Your task to perform on an android device: toggle notifications settings in the gmail app Image 0: 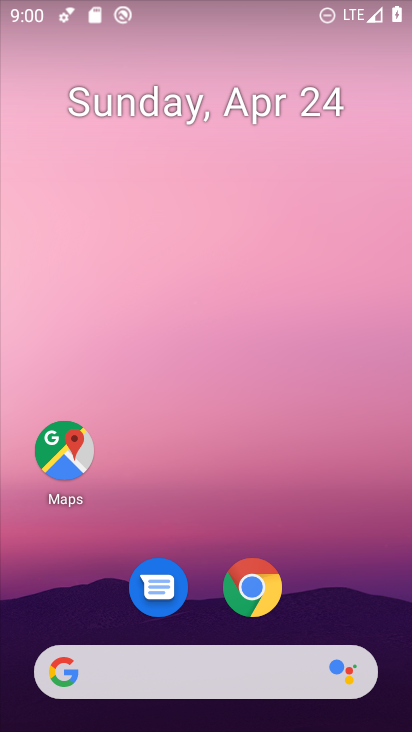
Step 0: drag from (328, 332) to (322, 242)
Your task to perform on an android device: toggle notifications settings in the gmail app Image 1: 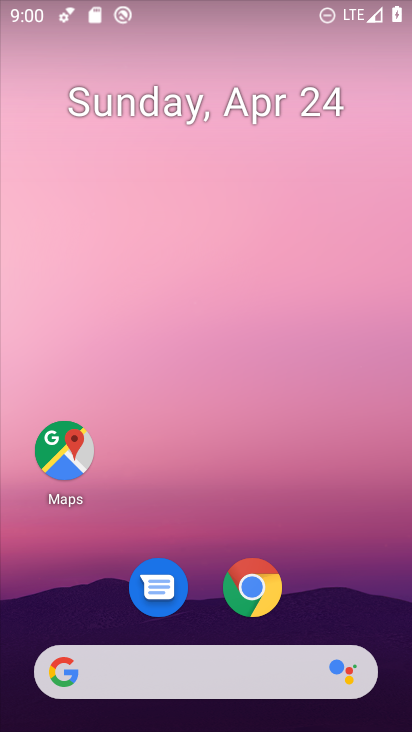
Step 1: drag from (366, 579) to (316, 239)
Your task to perform on an android device: toggle notifications settings in the gmail app Image 2: 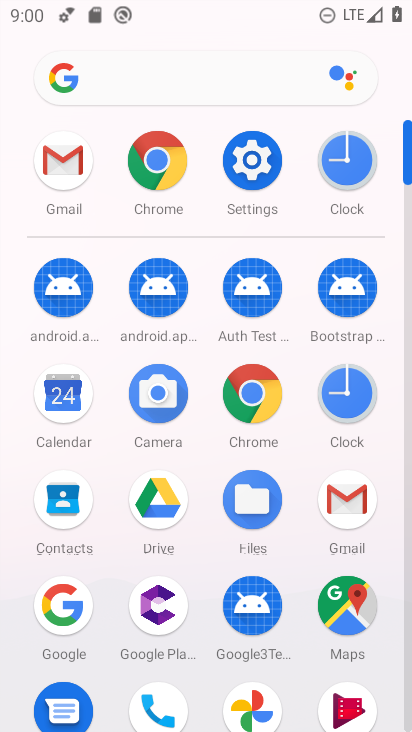
Step 2: click (340, 506)
Your task to perform on an android device: toggle notifications settings in the gmail app Image 3: 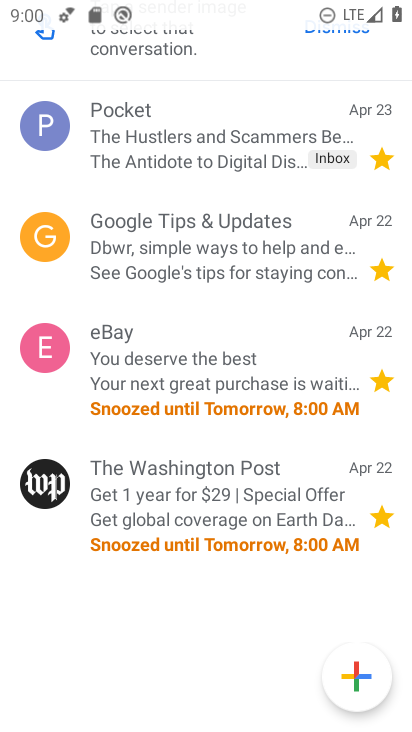
Step 3: drag from (163, 123) to (229, 496)
Your task to perform on an android device: toggle notifications settings in the gmail app Image 4: 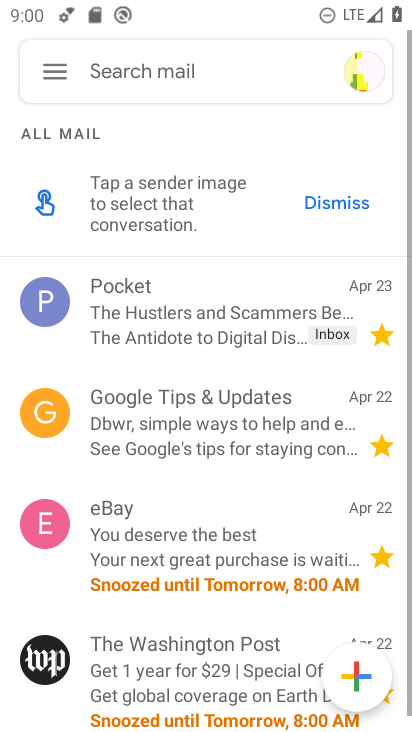
Step 4: click (59, 75)
Your task to perform on an android device: toggle notifications settings in the gmail app Image 5: 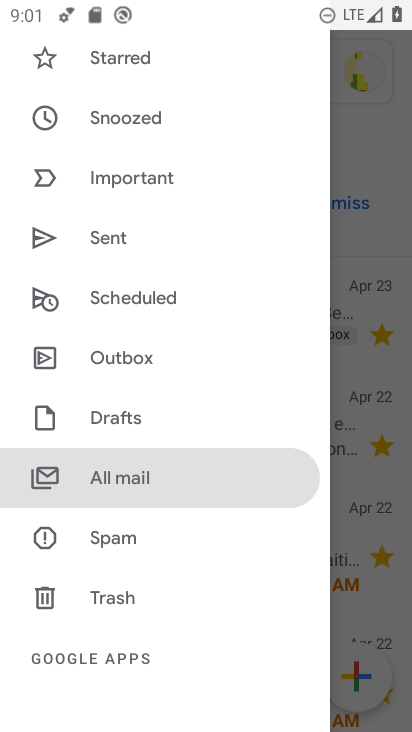
Step 5: drag from (203, 636) to (200, 362)
Your task to perform on an android device: toggle notifications settings in the gmail app Image 6: 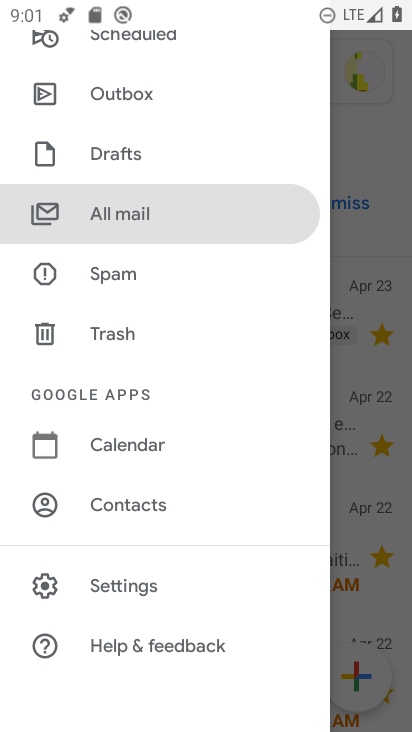
Step 6: click (100, 580)
Your task to perform on an android device: toggle notifications settings in the gmail app Image 7: 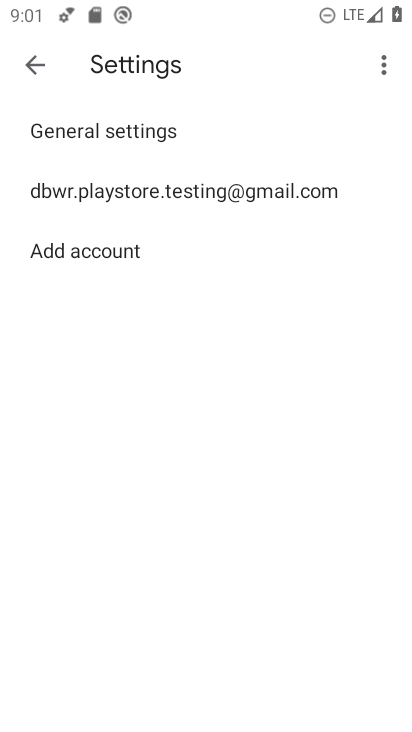
Step 7: click (232, 195)
Your task to perform on an android device: toggle notifications settings in the gmail app Image 8: 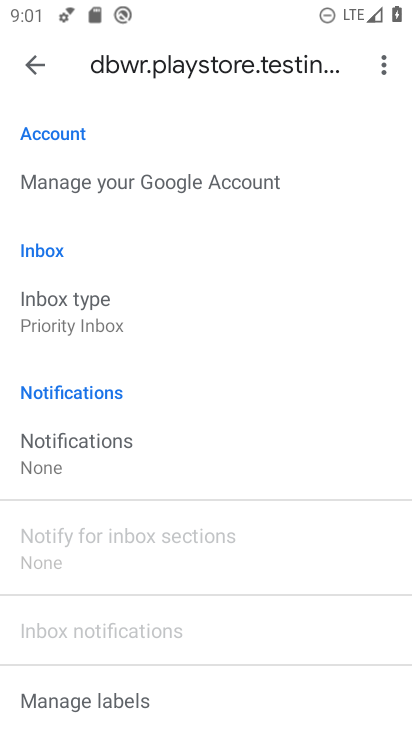
Step 8: click (79, 454)
Your task to perform on an android device: toggle notifications settings in the gmail app Image 9: 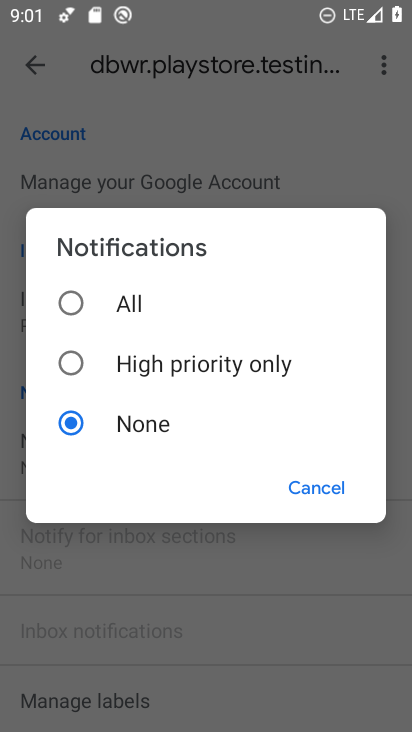
Step 9: click (105, 303)
Your task to perform on an android device: toggle notifications settings in the gmail app Image 10: 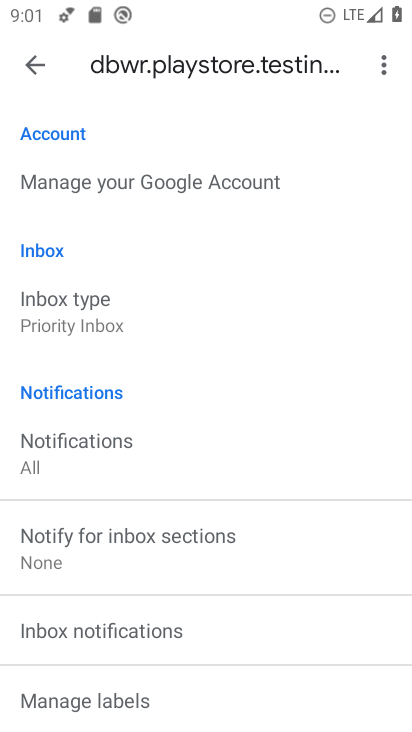
Step 10: task complete